Your task to perform on an android device: change the clock display to show seconds Image 0: 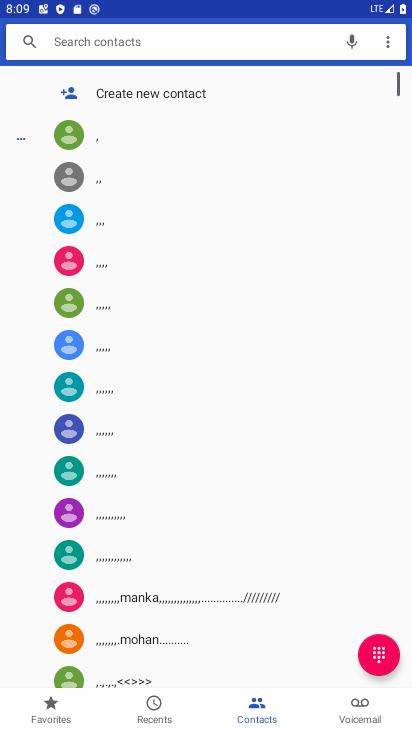
Step 0: press home button
Your task to perform on an android device: change the clock display to show seconds Image 1: 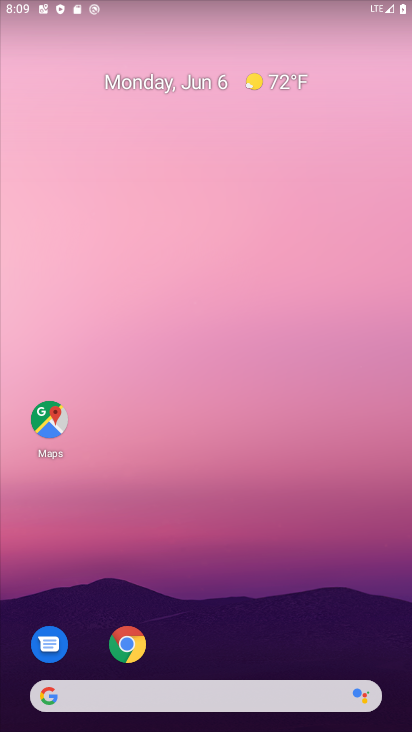
Step 1: drag from (302, 711) to (100, 288)
Your task to perform on an android device: change the clock display to show seconds Image 2: 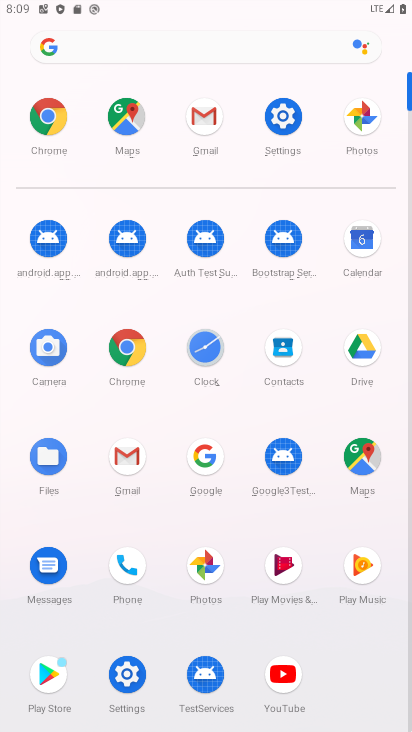
Step 2: click (208, 361)
Your task to perform on an android device: change the clock display to show seconds Image 3: 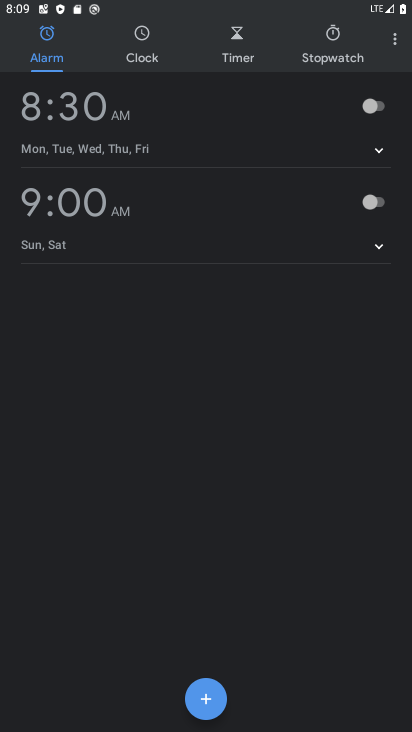
Step 3: click (395, 40)
Your task to perform on an android device: change the clock display to show seconds Image 4: 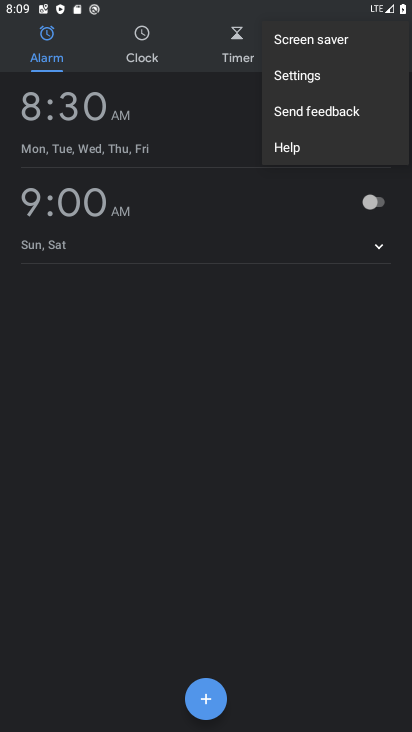
Step 4: click (283, 83)
Your task to perform on an android device: change the clock display to show seconds Image 5: 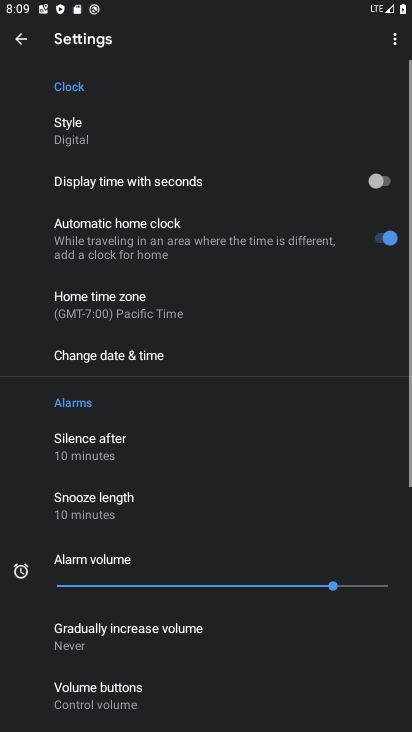
Step 5: click (263, 183)
Your task to perform on an android device: change the clock display to show seconds Image 6: 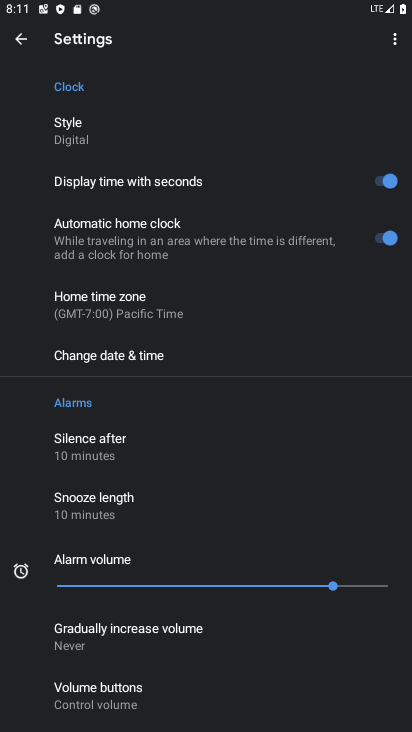
Step 6: task complete